Your task to perform on an android device: turn on improve location accuracy Image 0: 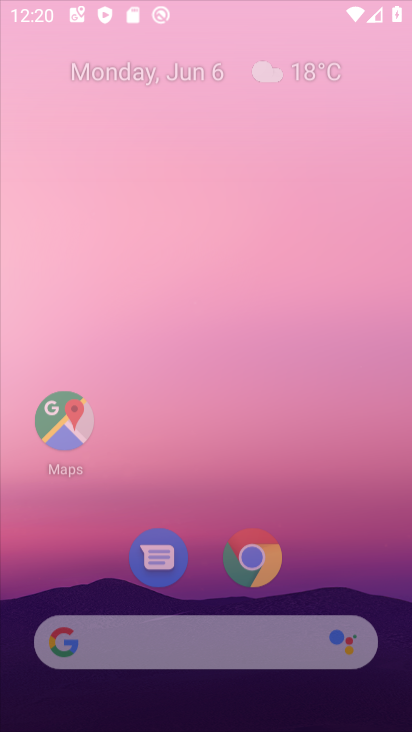
Step 0: press home button
Your task to perform on an android device: turn on improve location accuracy Image 1: 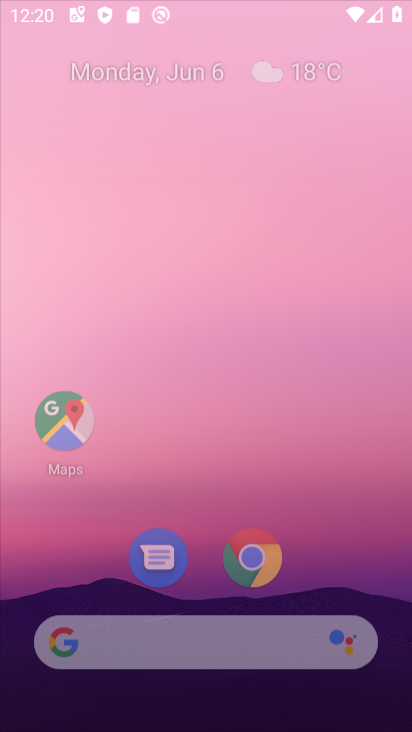
Step 1: click (340, 173)
Your task to perform on an android device: turn on improve location accuracy Image 2: 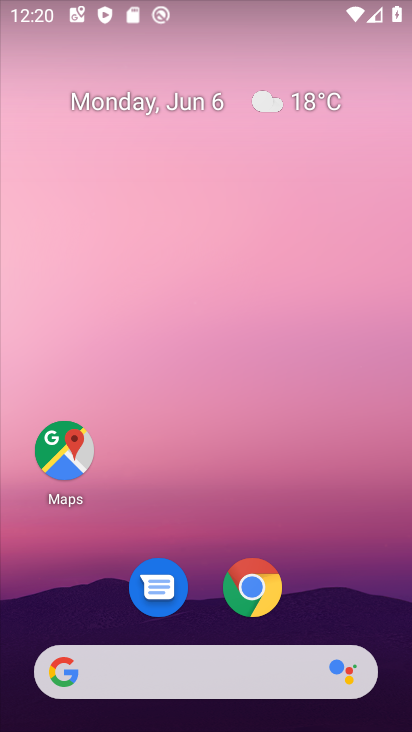
Step 2: drag from (318, 586) to (335, 136)
Your task to perform on an android device: turn on improve location accuracy Image 3: 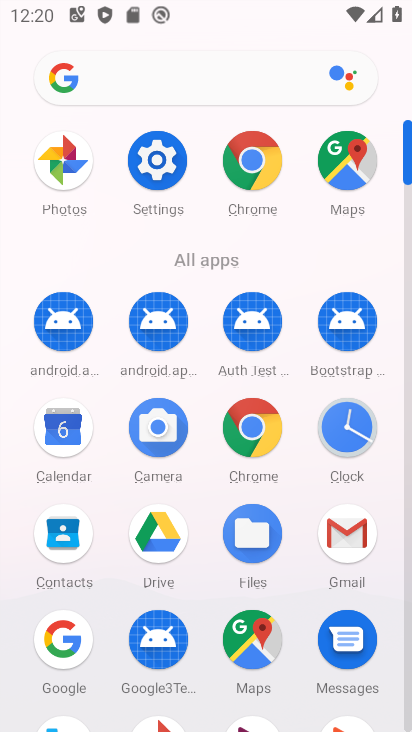
Step 3: click (168, 171)
Your task to perform on an android device: turn on improve location accuracy Image 4: 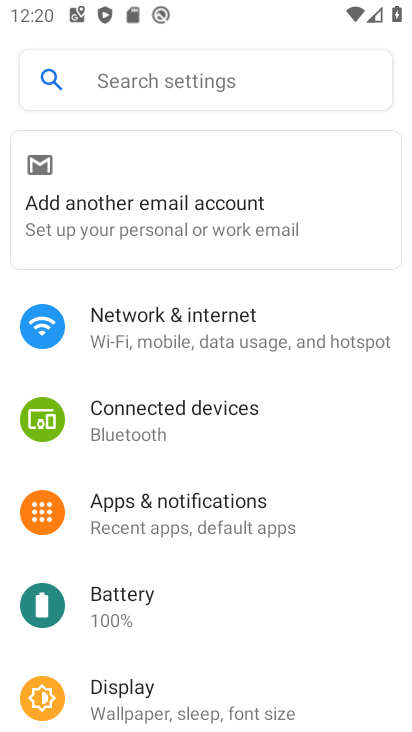
Step 4: drag from (246, 645) to (300, 142)
Your task to perform on an android device: turn on improve location accuracy Image 5: 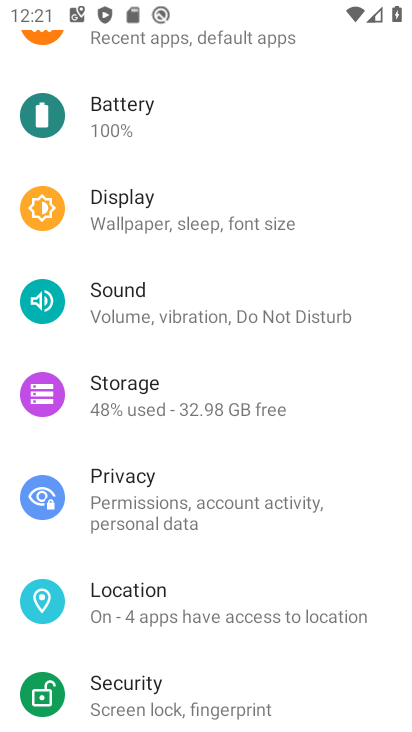
Step 5: drag from (251, 676) to (298, 301)
Your task to perform on an android device: turn on improve location accuracy Image 6: 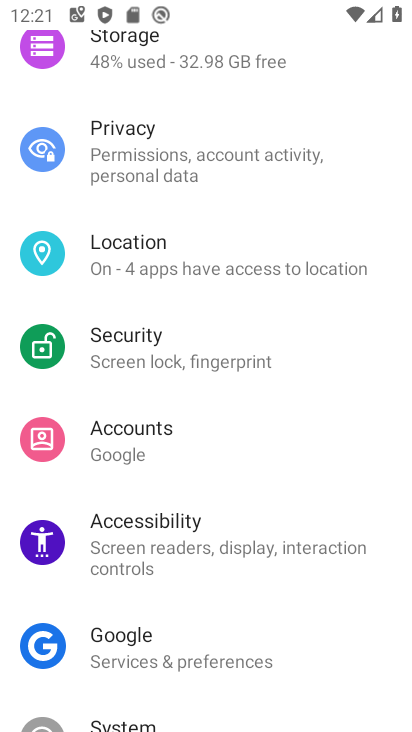
Step 6: click (157, 261)
Your task to perform on an android device: turn on improve location accuracy Image 7: 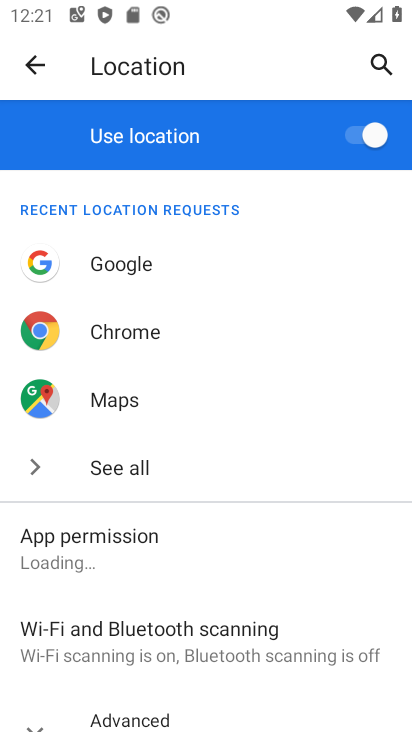
Step 7: drag from (230, 559) to (264, 319)
Your task to perform on an android device: turn on improve location accuracy Image 8: 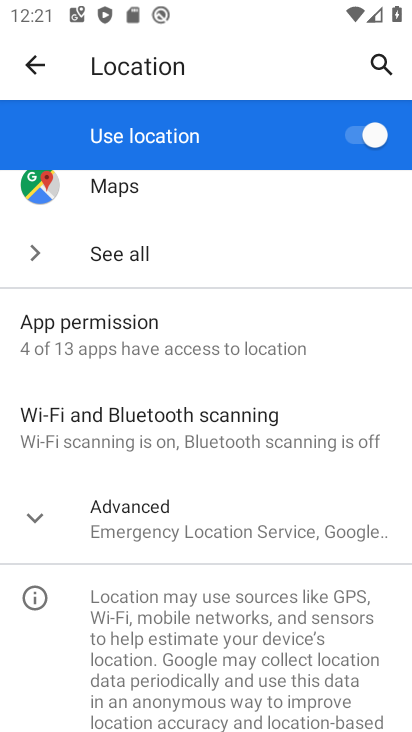
Step 8: click (262, 530)
Your task to perform on an android device: turn on improve location accuracy Image 9: 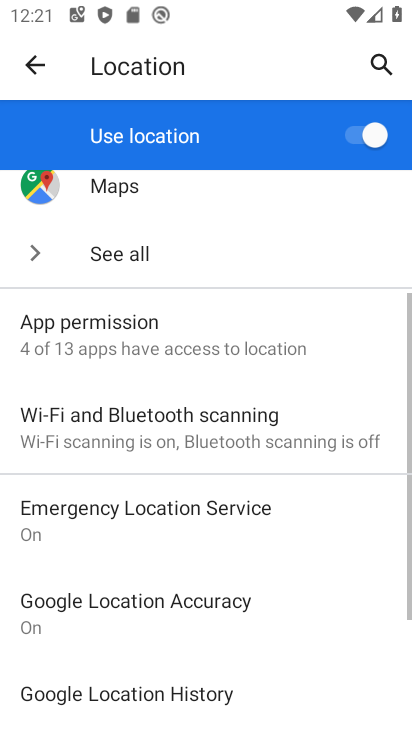
Step 9: task complete